Your task to perform on an android device: Search for sushi restaurants on Maps Image 0: 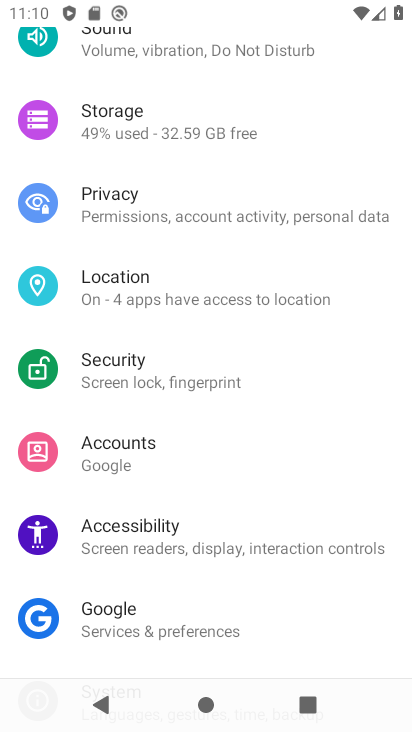
Step 0: press home button
Your task to perform on an android device: Search for sushi restaurants on Maps Image 1: 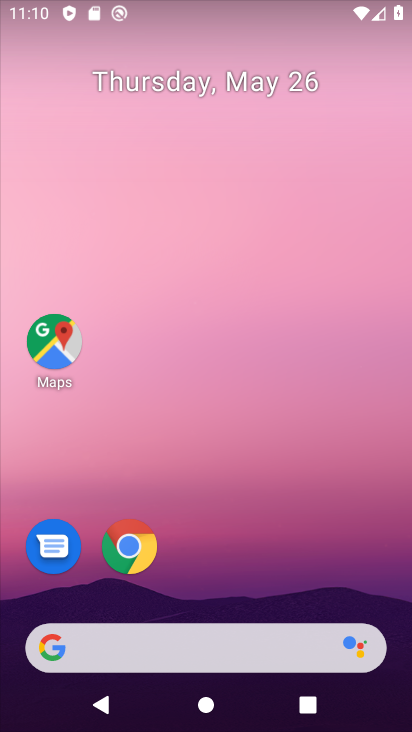
Step 1: click (54, 348)
Your task to perform on an android device: Search for sushi restaurants on Maps Image 2: 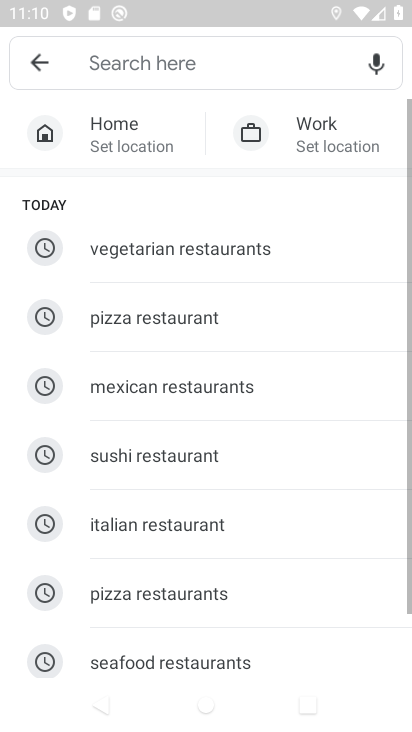
Step 2: click (170, 458)
Your task to perform on an android device: Search for sushi restaurants on Maps Image 3: 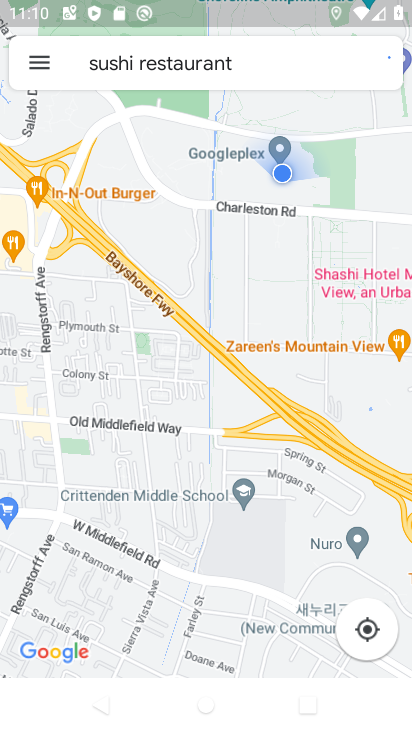
Step 3: task complete